Your task to perform on an android device: Search for vegetarian restaurants on Maps Image 0: 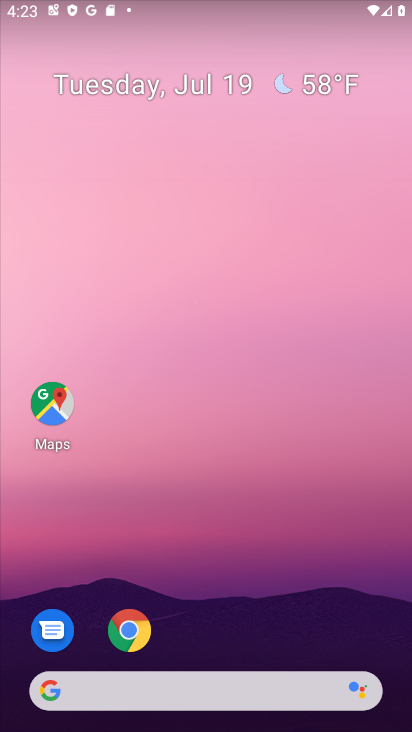
Step 0: press home button
Your task to perform on an android device: Search for vegetarian restaurants on Maps Image 1: 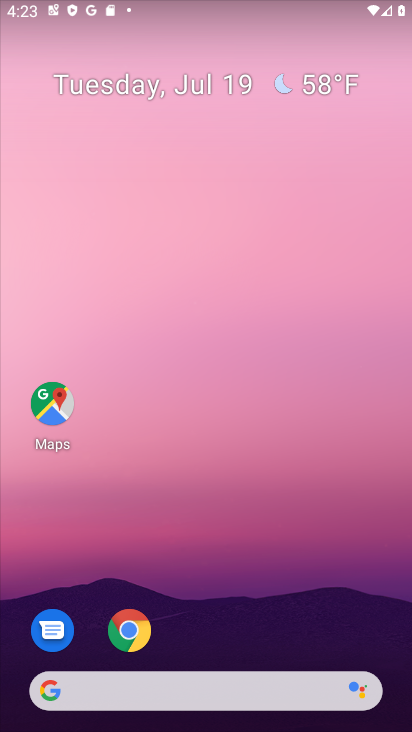
Step 1: click (61, 402)
Your task to perform on an android device: Search for vegetarian restaurants on Maps Image 2: 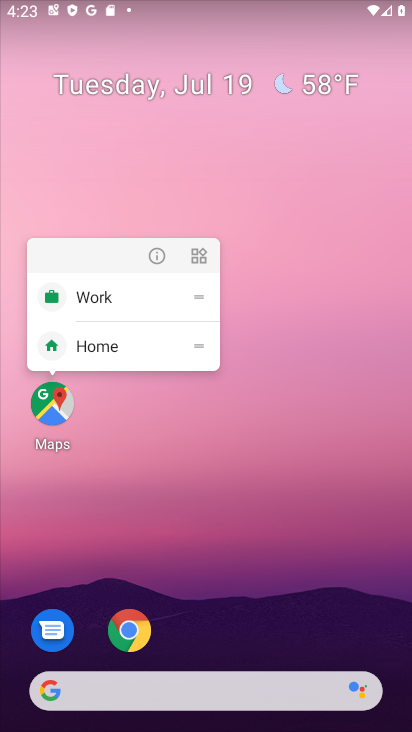
Step 2: click (61, 402)
Your task to perform on an android device: Search for vegetarian restaurants on Maps Image 3: 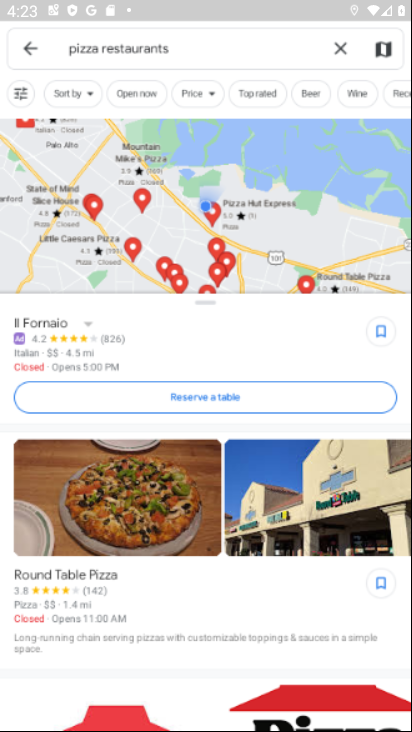
Step 3: click (338, 49)
Your task to perform on an android device: Search for vegetarian restaurants on Maps Image 4: 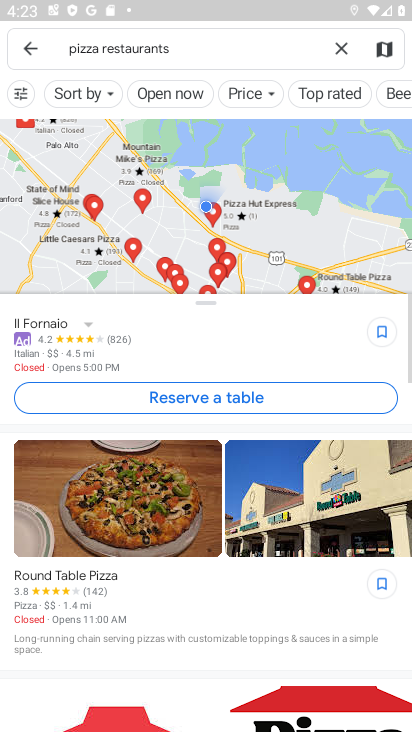
Step 4: click (339, 46)
Your task to perform on an android device: Search for vegetarian restaurants on Maps Image 5: 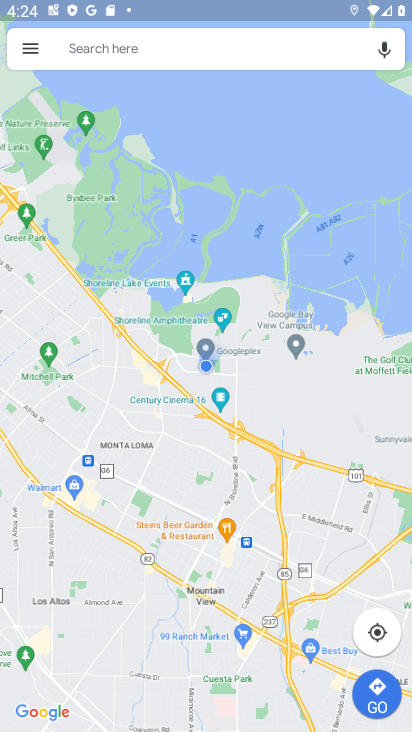
Step 5: type "vegetarian restaurants"
Your task to perform on an android device: Search for vegetarian restaurants on Maps Image 6: 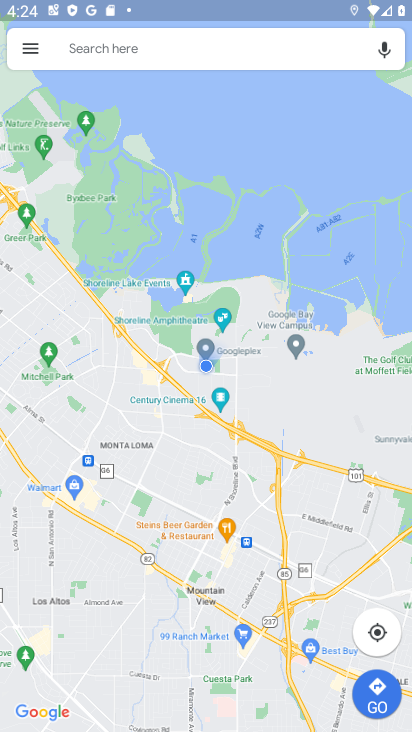
Step 6: click (77, 44)
Your task to perform on an android device: Search for vegetarian restaurants on Maps Image 7: 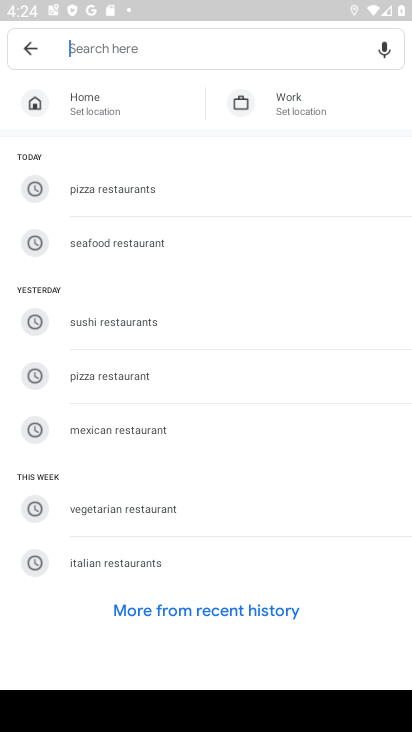
Step 7: click (123, 503)
Your task to perform on an android device: Search for vegetarian restaurants on Maps Image 8: 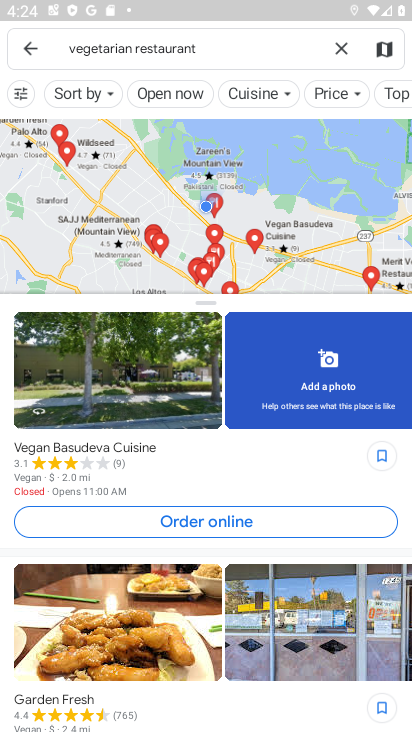
Step 8: task complete